Your task to perform on an android device: Go to CNN.com Image 0: 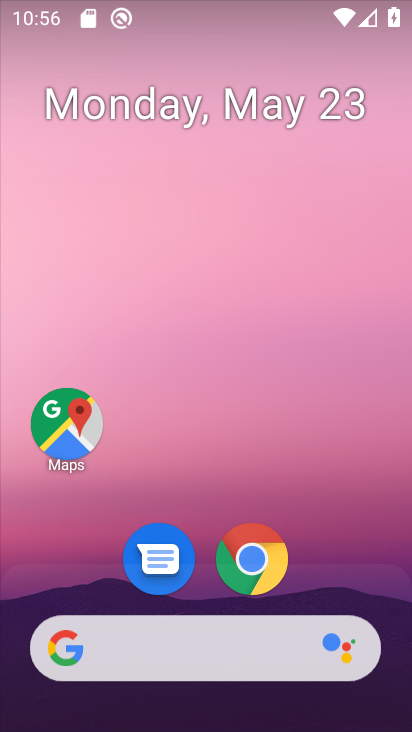
Step 0: click (247, 568)
Your task to perform on an android device: Go to CNN.com Image 1: 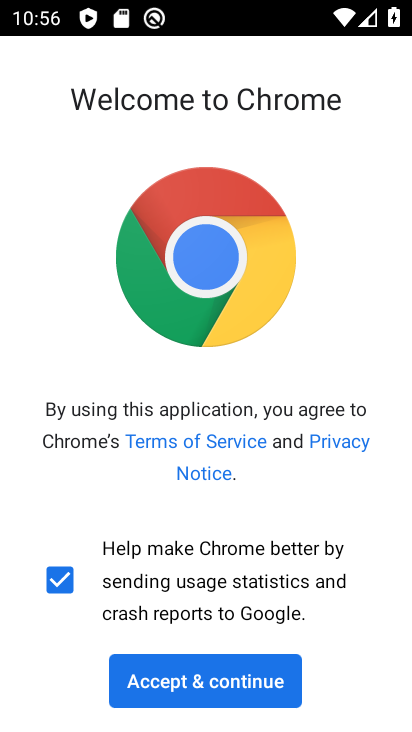
Step 1: click (202, 693)
Your task to perform on an android device: Go to CNN.com Image 2: 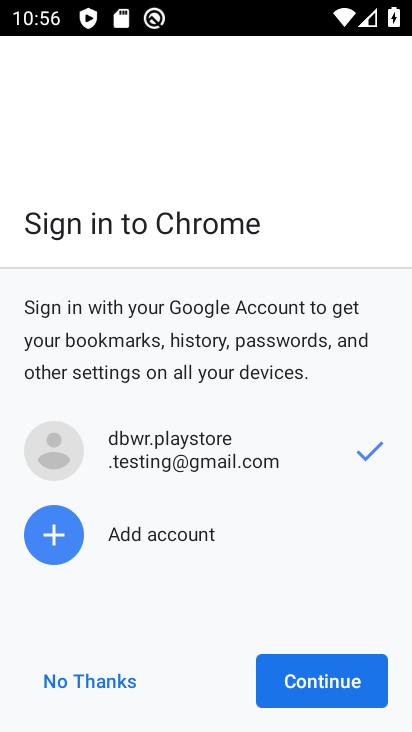
Step 2: click (374, 702)
Your task to perform on an android device: Go to CNN.com Image 3: 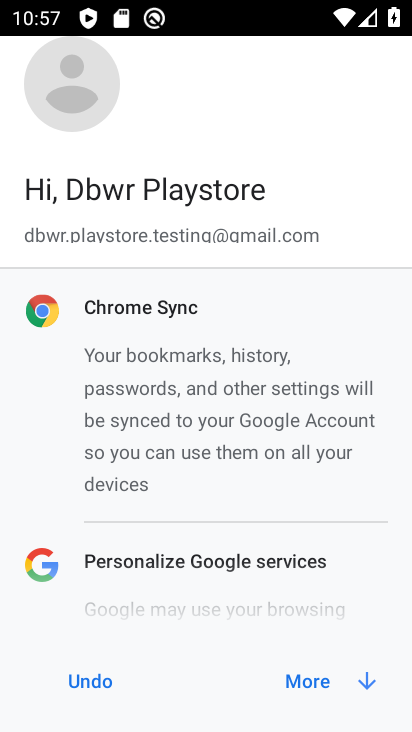
Step 3: click (374, 701)
Your task to perform on an android device: Go to CNN.com Image 4: 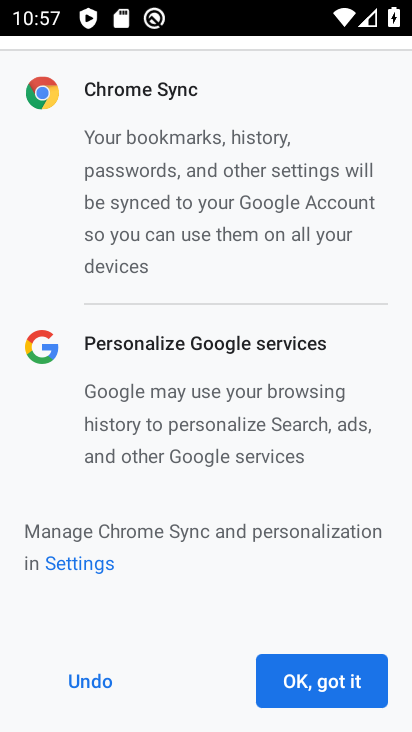
Step 4: click (374, 698)
Your task to perform on an android device: Go to CNN.com Image 5: 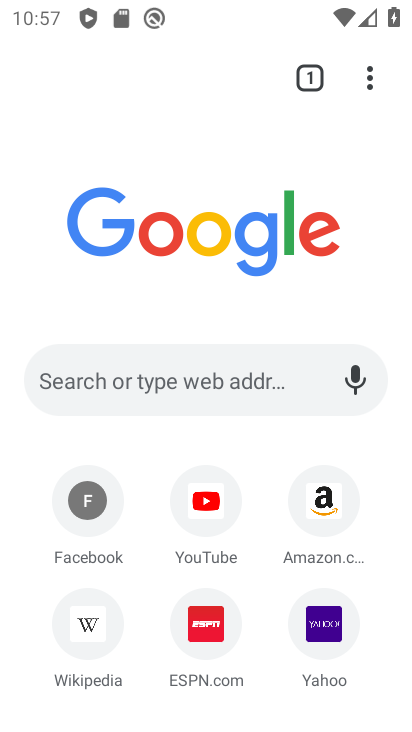
Step 5: click (168, 382)
Your task to perform on an android device: Go to CNN.com Image 6: 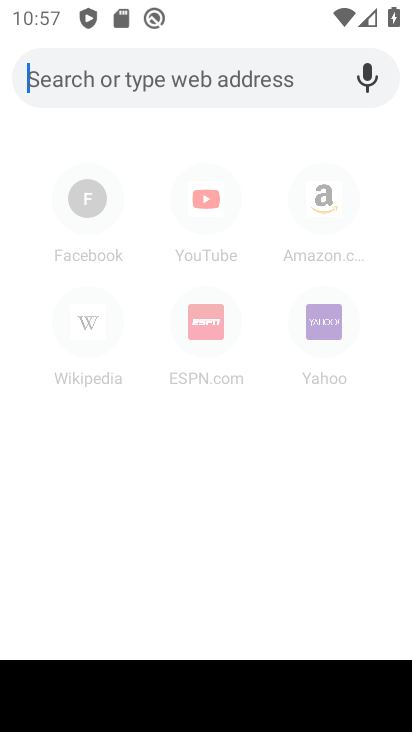
Step 6: type "CNN.com"
Your task to perform on an android device: Go to CNN.com Image 7: 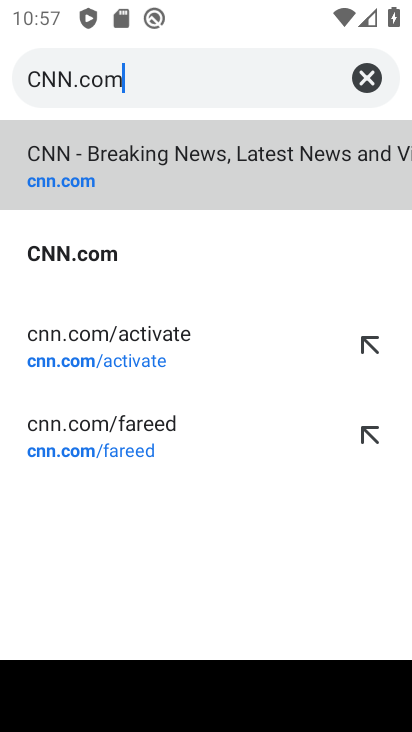
Step 7: click (158, 197)
Your task to perform on an android device: Go to CNN.com Image 8: 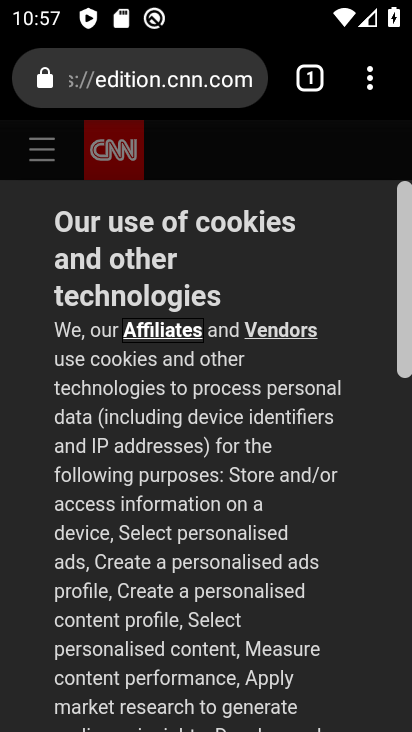
Step 8: drag from (148, 599) to (252, 182)
Your task to perform on an android device: Go to CNN.com Image 9: 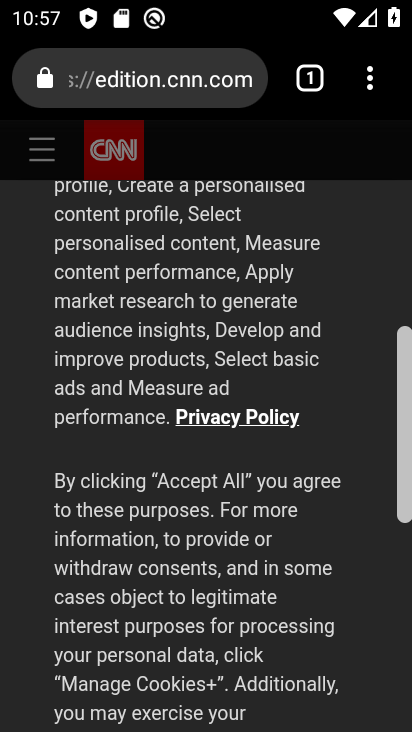
Step 9: drag from (206, 641) to (286, 233)
Your task to perform on an android device: Go to CNN.com Image 10: 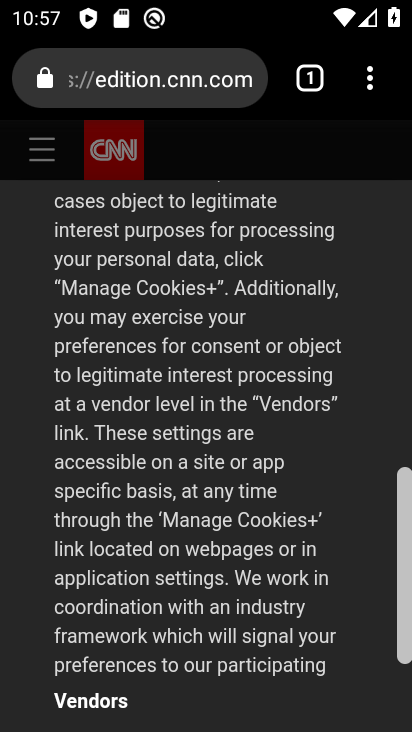
Step 10: drag from (252, 618) to (335, 238)
Your task to perform on an android device: Go to CNN.com Image 11: 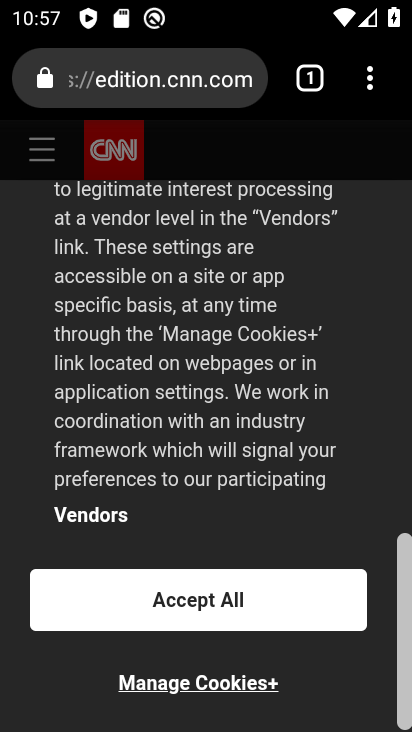
Step 11: click (241, 616)
Your task to perform on an android device: Go to CNN.com Image 12: 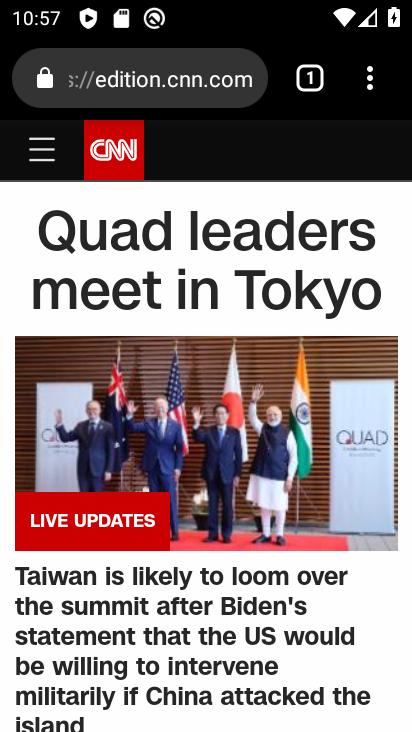
Step 12: task complete